Your task to perform on an android device: open app "YouTube Kids" (install if not already installed) Image 0: 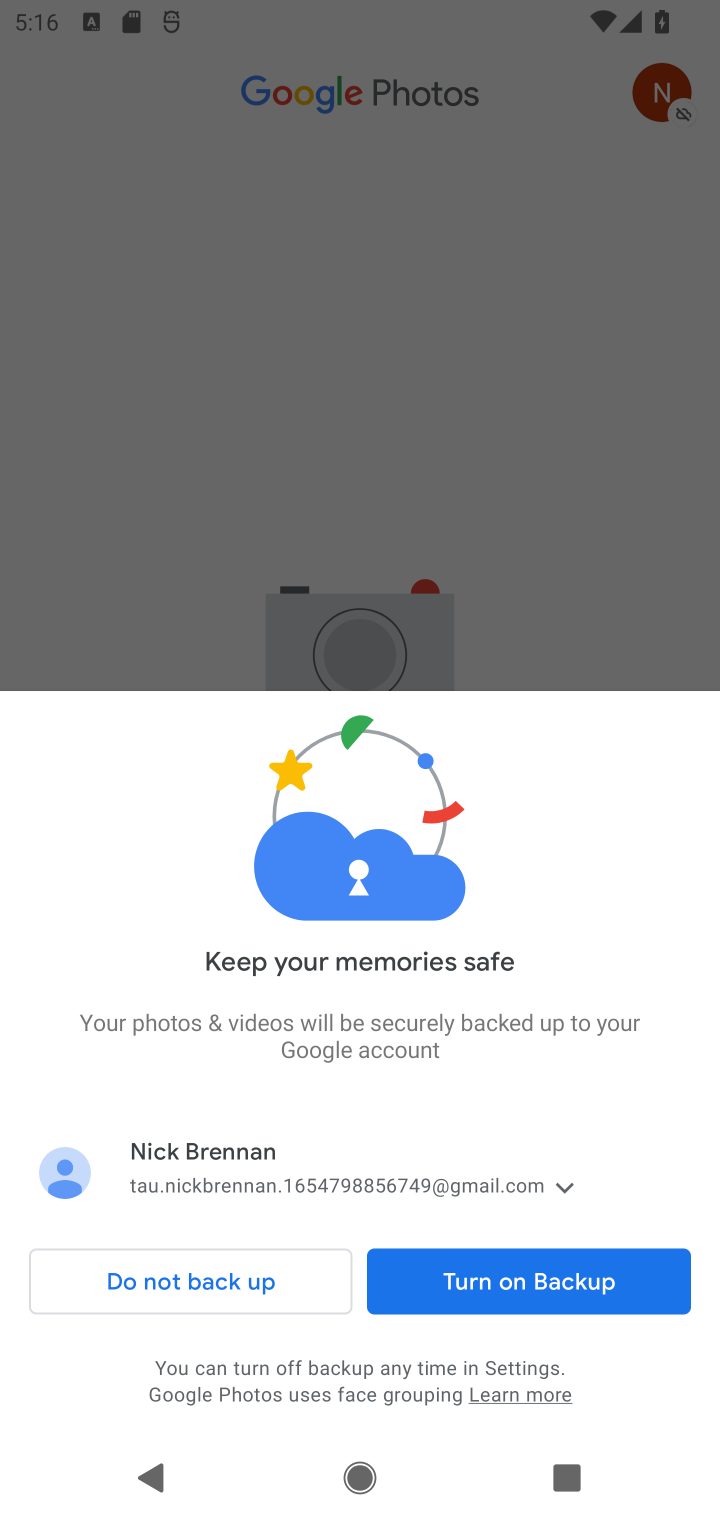
Step 0: press home button
Your task to perform on an android device: open app "YouTube Kids" (install if not already installed) Image 1: 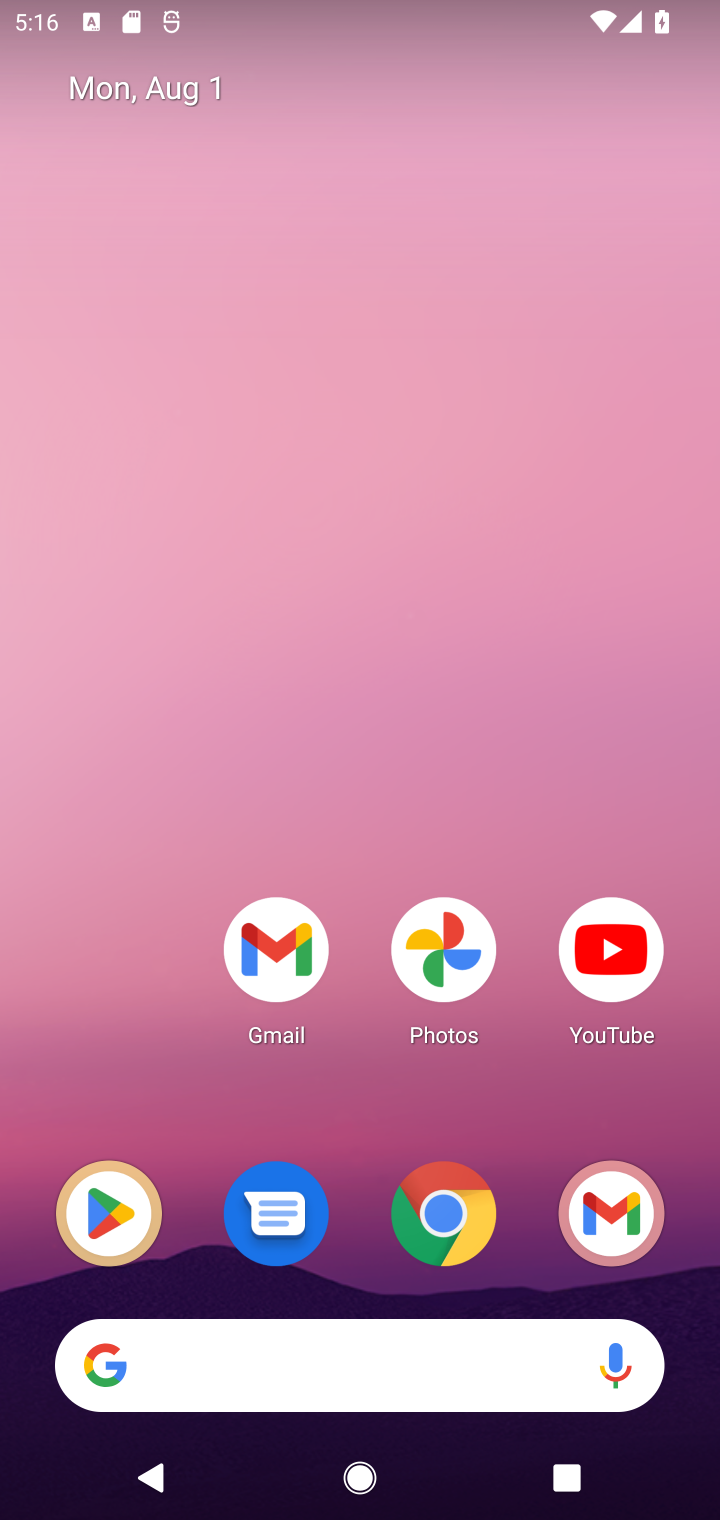
Step 1: drag from (526, 1077) to (400, 40)
Your task to perform on an android device: open app "YouTube Kids" (install if not already installed) Image 2: 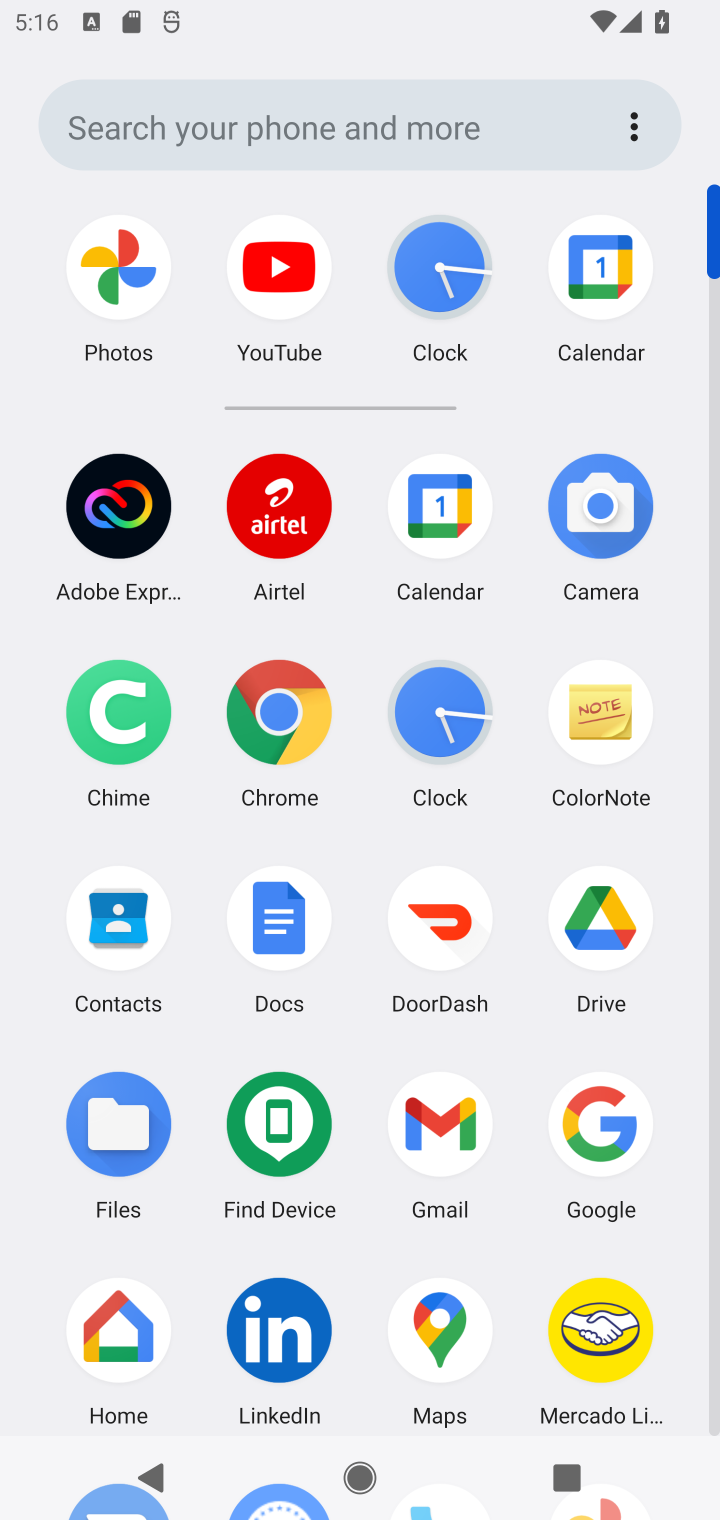
Step 2: drag from (374, 1227) to (415, 464)
Your task to perform on an android device: open app "YouTube Kids" (install if not already installed) Image 3: 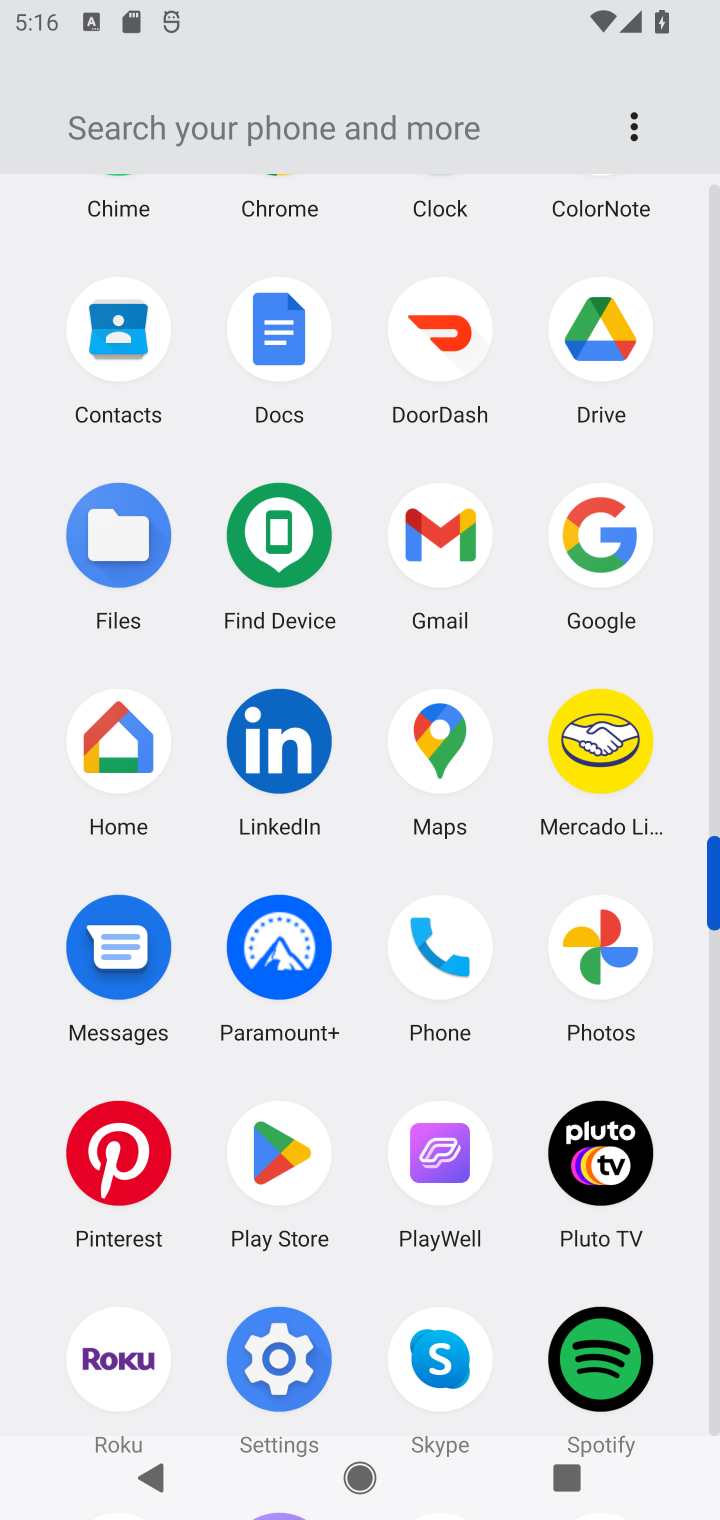
Step 3: click (260, 1142)
Your task to perform on an android device: open app "YouTube Kids" (install if not already installed) Image 4: 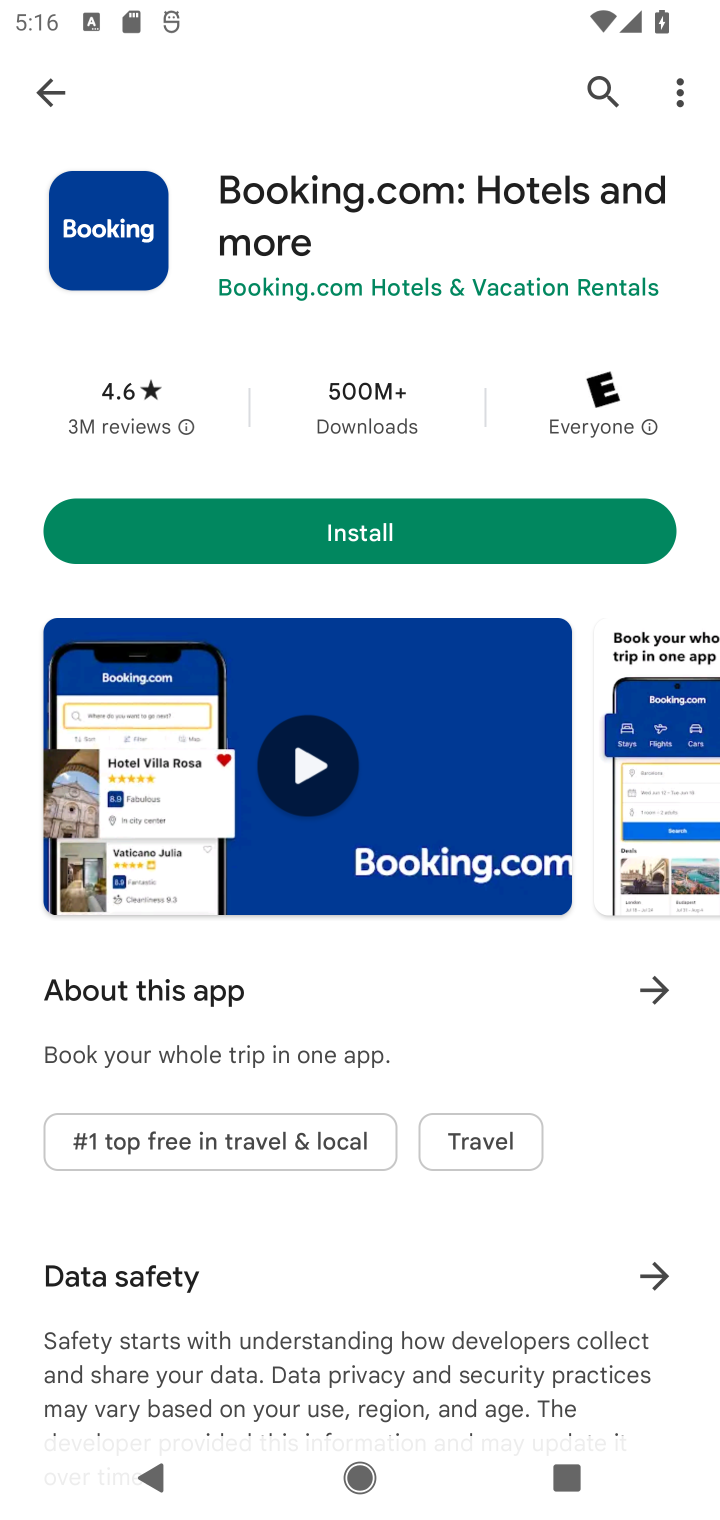
Step 4: click (609, 89)
Your task to perform on an android device: open app "YouTube Kids" (install if not already installed) Image 5: 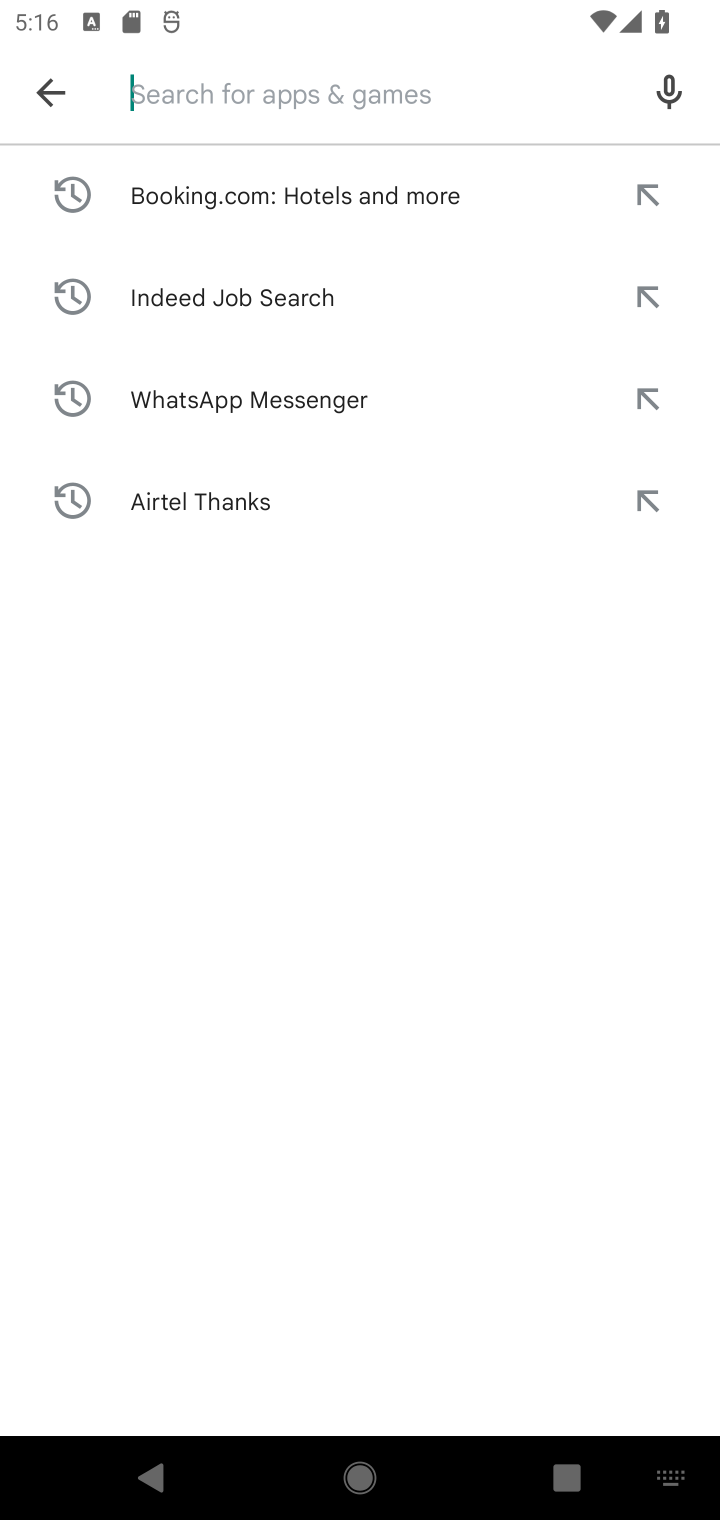
Step 5: type "YouTube Kids"
Your task to perform on an android device: open app "YouTube Kids" (install if not already installed) Image 6: 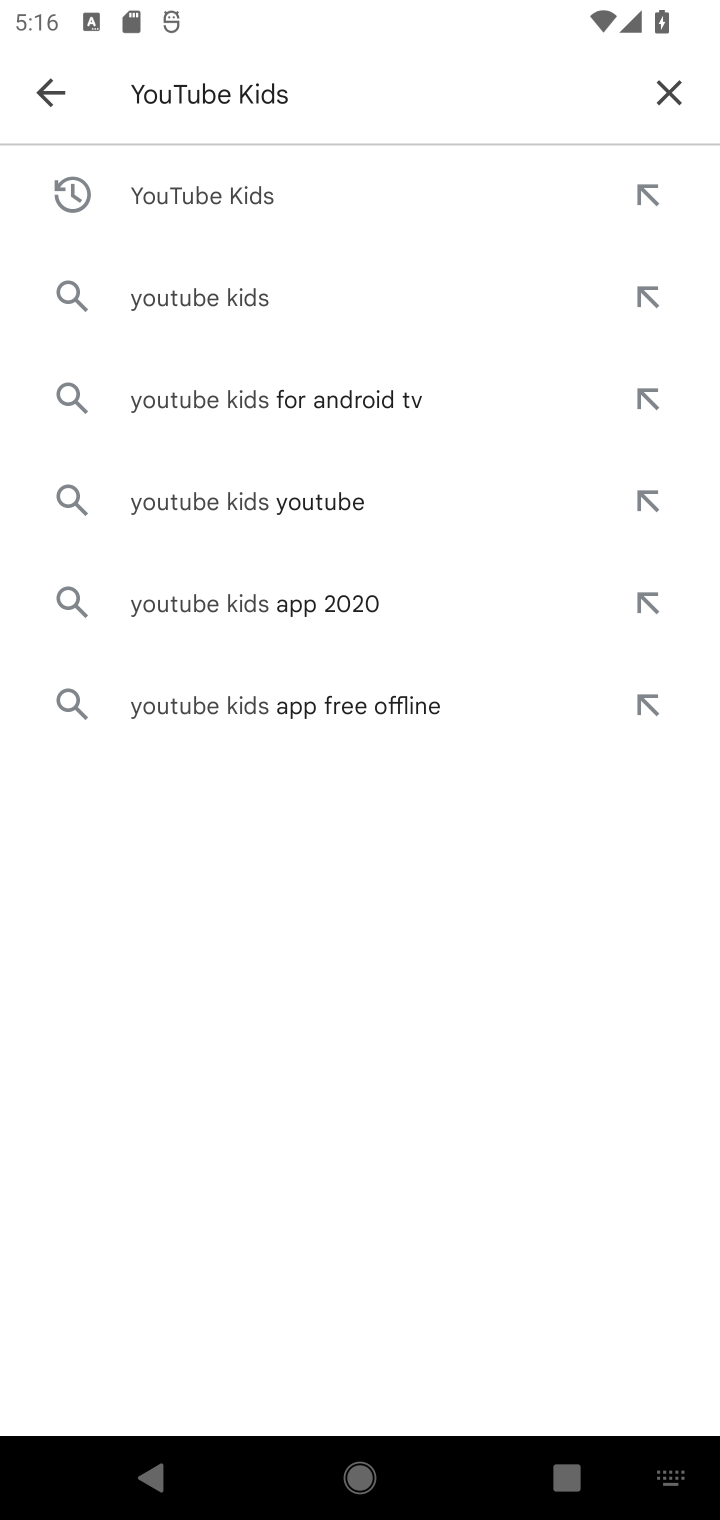
Step 6: press enter
Your task to perform on an android device: open app "YouTube Kids" (install if not already installed) Image 7: 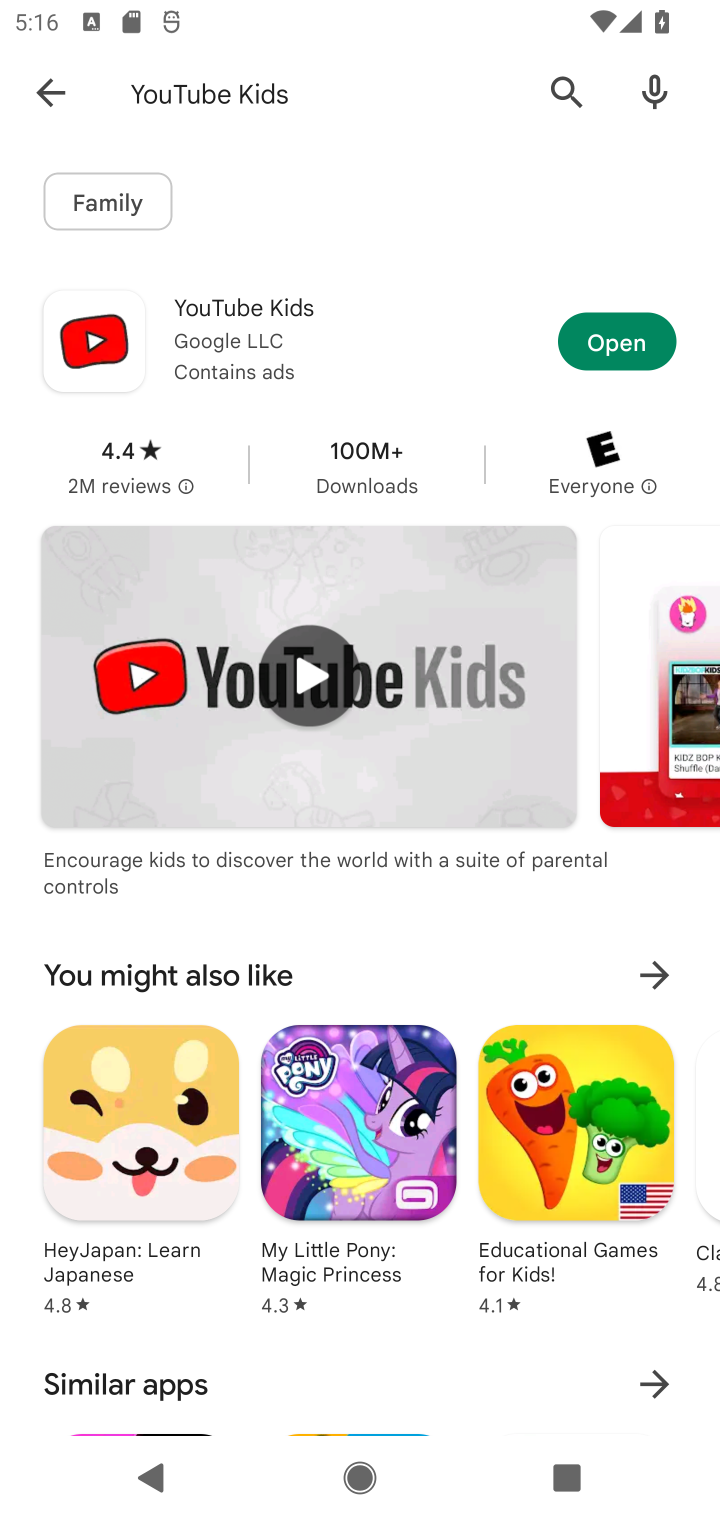
Step 7: click (627, 349)
Your task to perform on an android device: open app "YouTube Kids" (install if not already installed) Image 8: 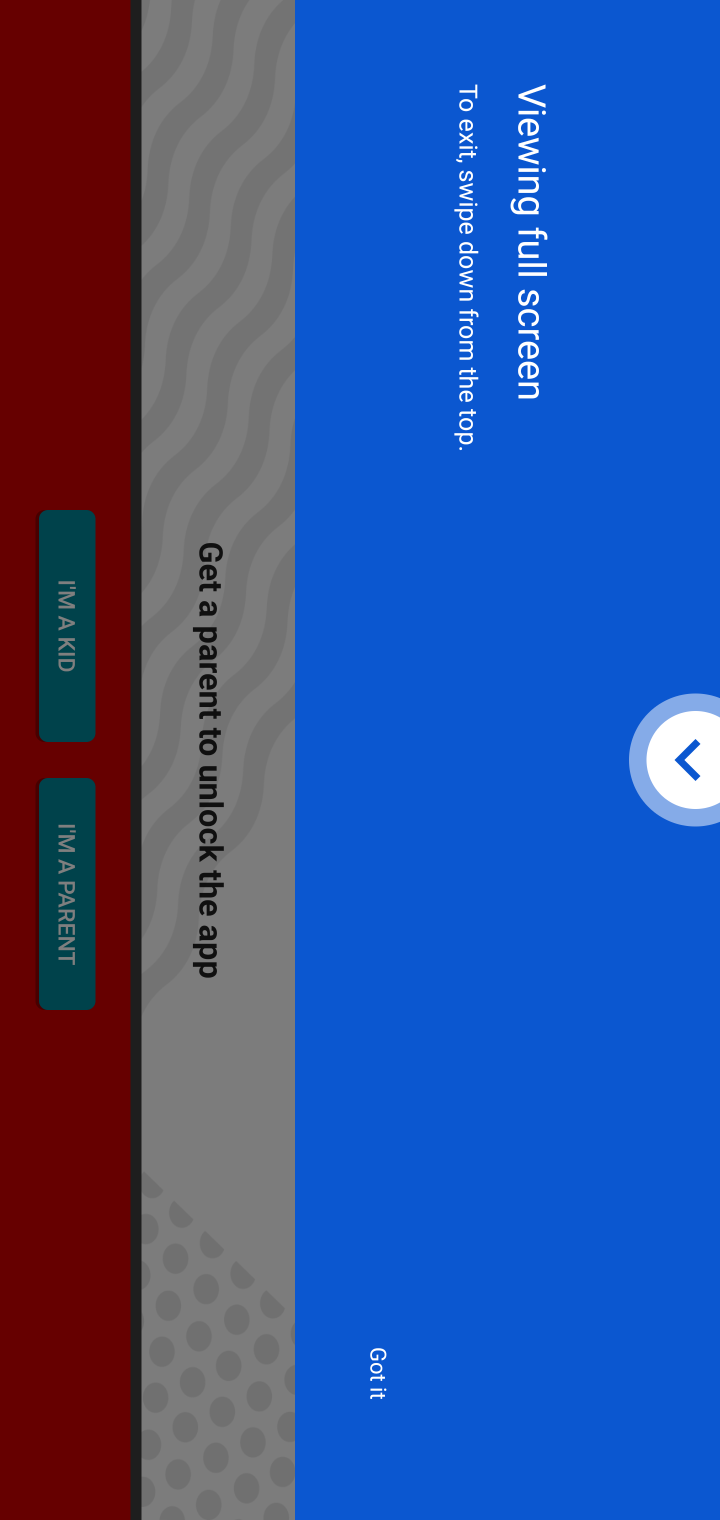
Step 8: task complete